Your task to perform on an android device: Search for hotels in Buenos aires Image 0: 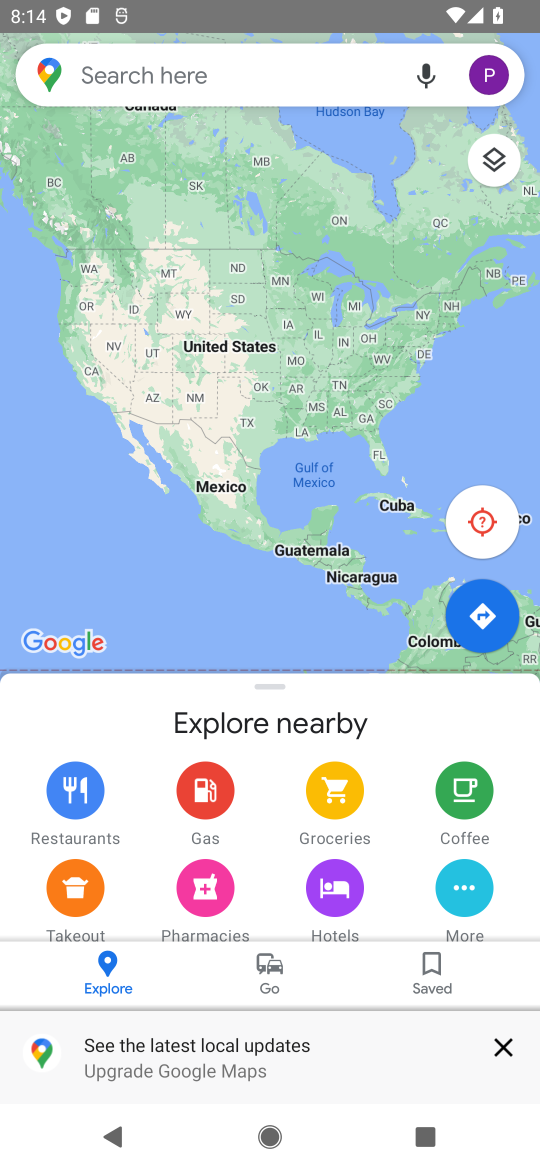
Step 0: press home button
Your task to perform on an android device: Search for hotels in Buenos aires Image 1: 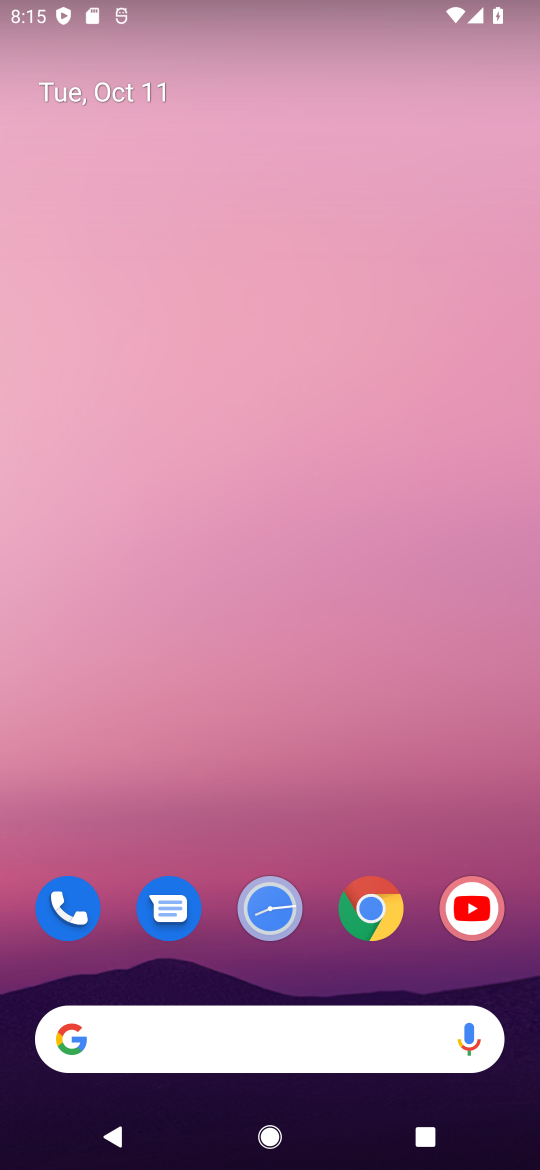
Step 1: click (256, 1035)
Your task to perform on an android device: Search for hotels in Buenos aires Image 2: 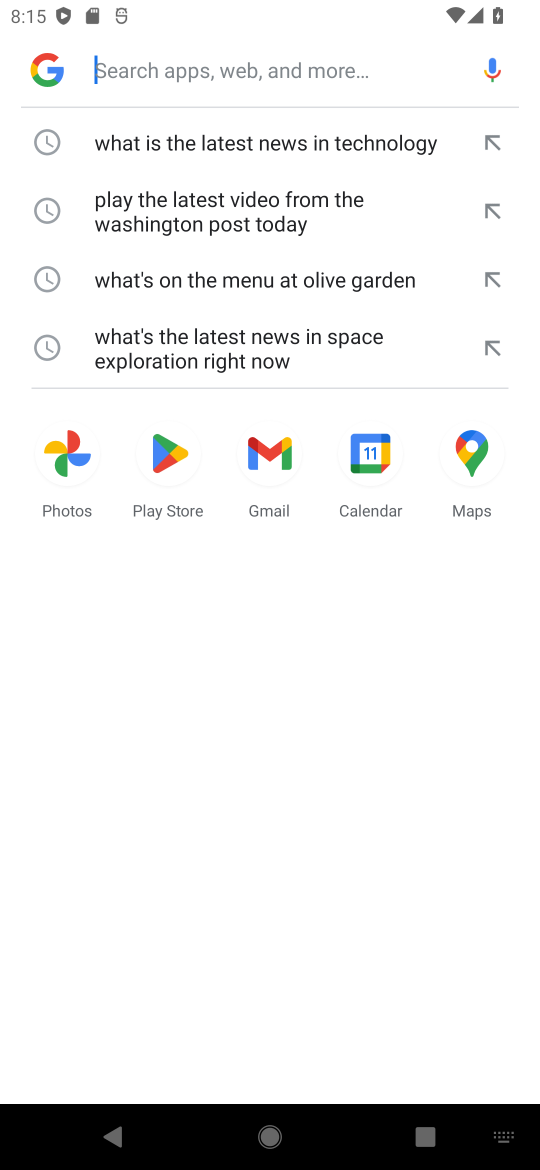
Step 2: type "Search for hotels in Buenos aires"
Your task to perform on an android device: Search for hotels in Buenos aires Image 3: 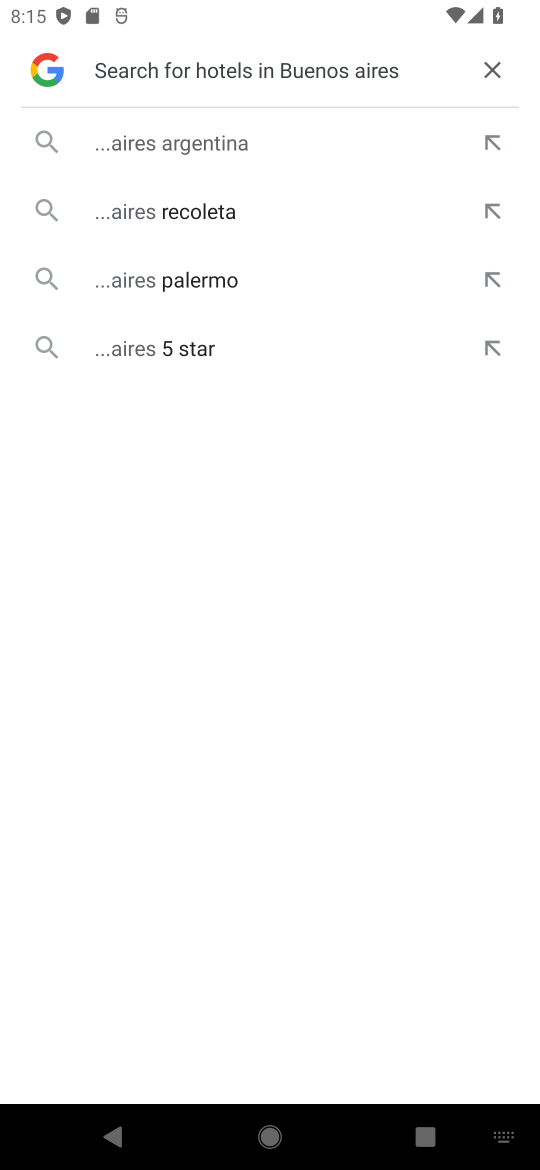
Step 3: click (149, 345)
Your task to perform on an android device: Search for hotels in Buenos aires Image 4: 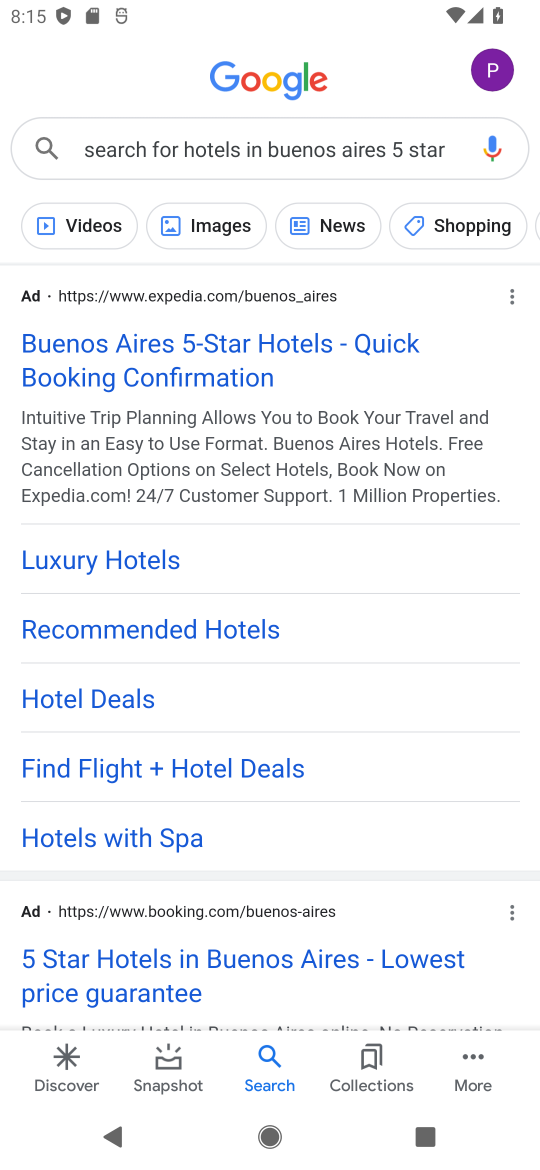
Step 4: click (202, 335)
Your task to perform on an android device: Search for hotels in Buenos aires Image 5: 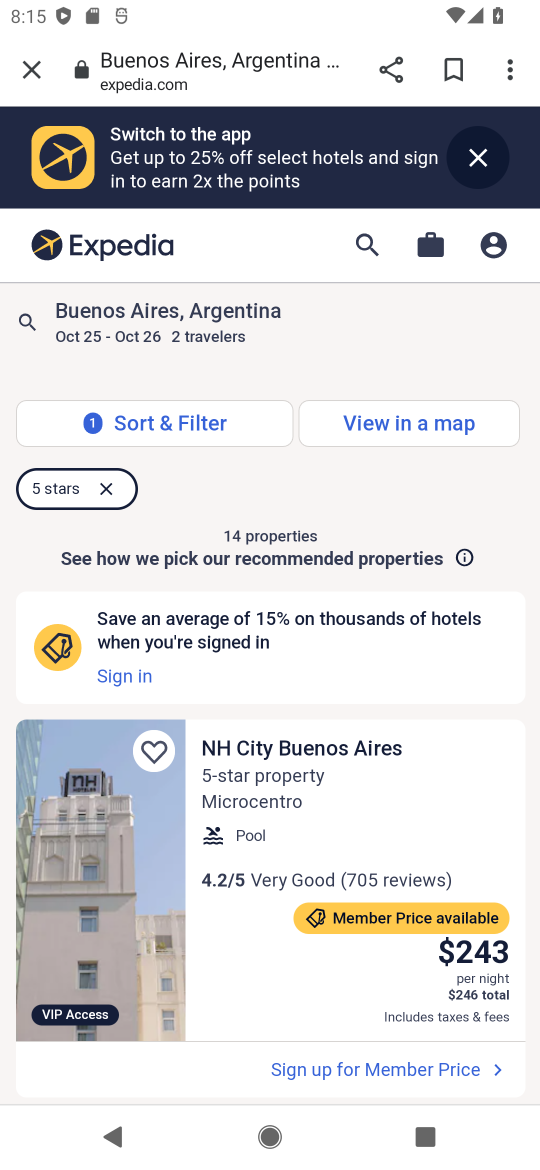
Step 5: task complete